Your task to perform on an android device: check google app version Image 0: 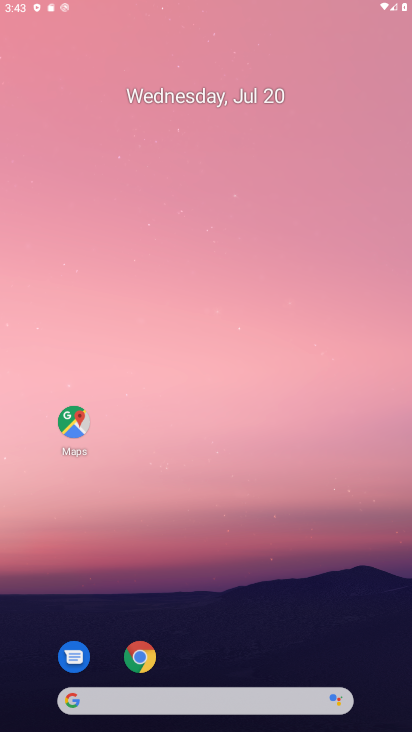
Step 0: press back button
Your task to perform on an android device: check google app version Image 1: 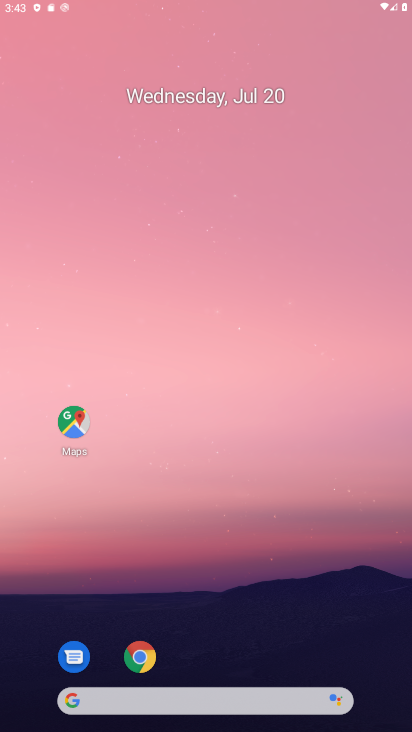
Step 1: click (157, 142)
Your task to perform on an android device: check google app version Image 2: 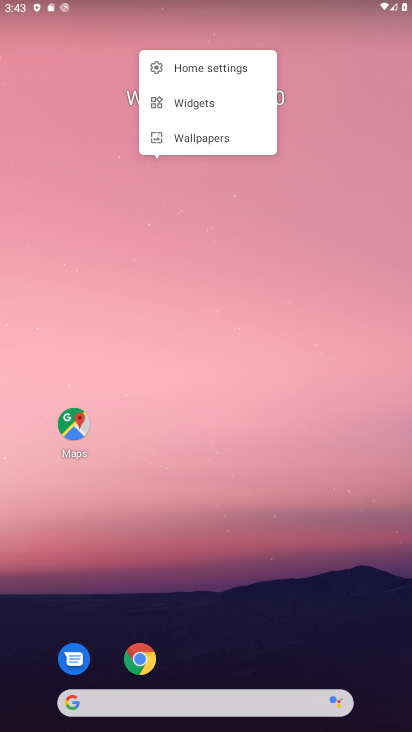
Step 2: drag from (265, 385) to (250, 74)
Your task to perform on an android device: check google app version Image 3: 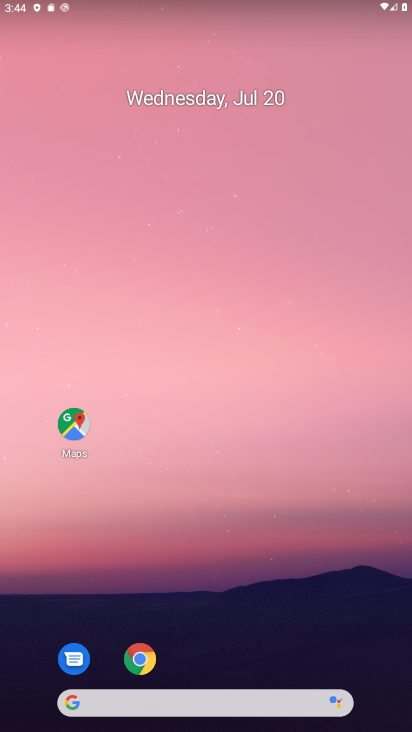
Step 3: drag from (226, 210) to (193, 107)
Your task to perform on an android device: check google app version Image 4: 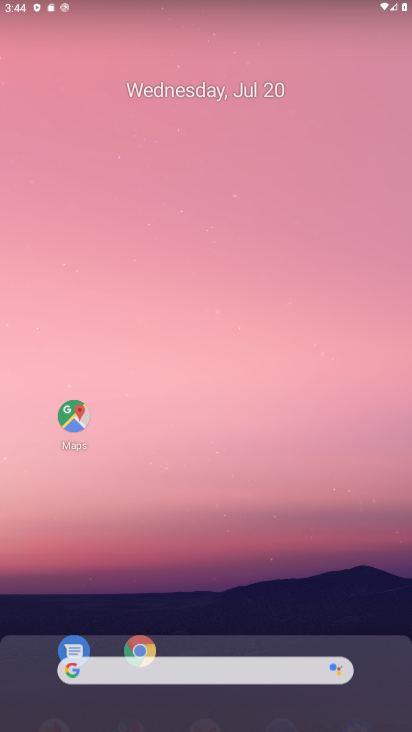
Step 4: drag from (223, 526) to (242, 53)
Your task to perform on an android device: check google app version Image 5: 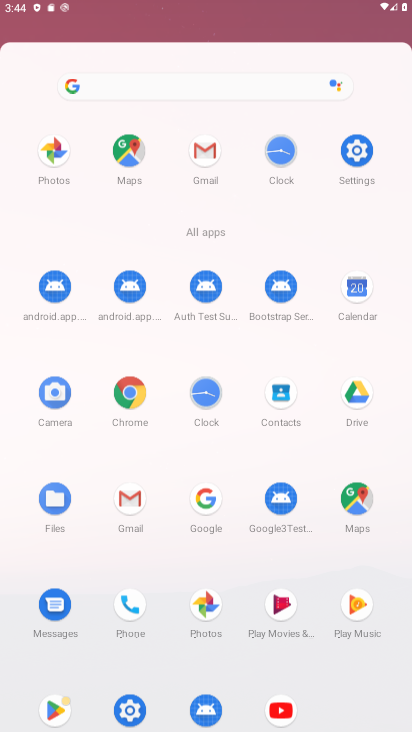
Step 5: drag from (237, 468) to (253, 21)
Your task to perform on an android device: check google app version Image 6: 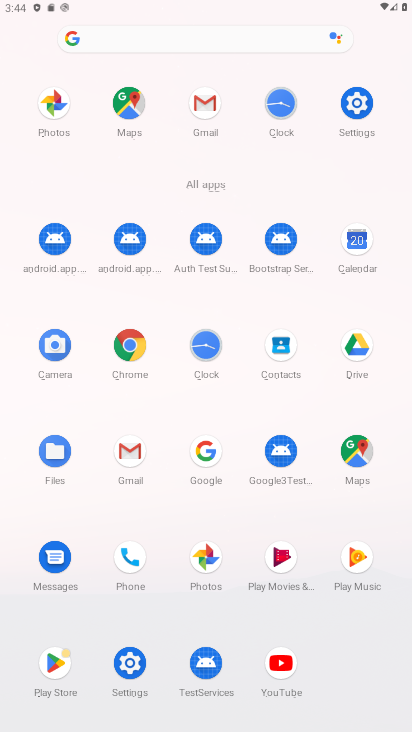
Step 6: click (198, 457)
Your task to perform on an android device: check google app version Image 7: 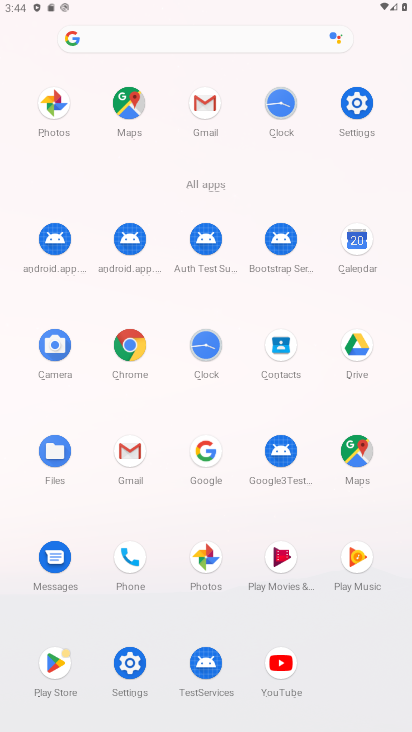
Step 7: click (198, 457)
Your task to perform on an android device: check google app version Image 8: 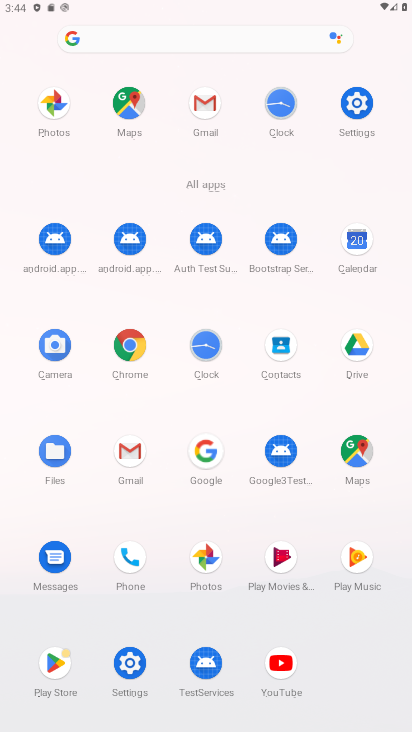
Step 8: click (198, 457)
Your task to perform on an android device: check google app version Image 9: 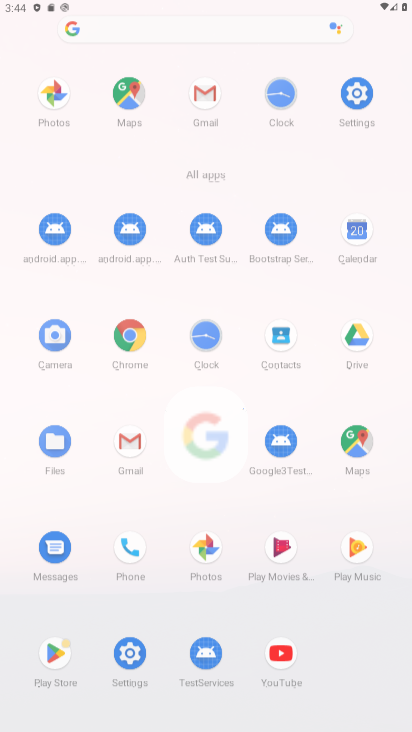
Step 9: click (200, 457)
Your task to perform on an android device: check google app version Image 10: 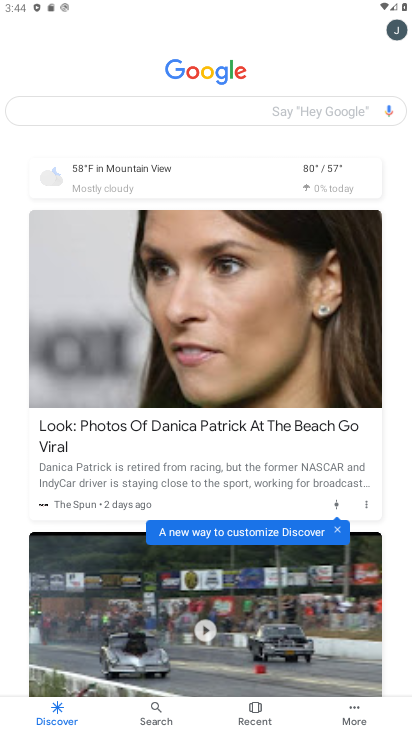
Step 10: click (358, 707)
Your task to perform on an android device: check google app version Image 11: 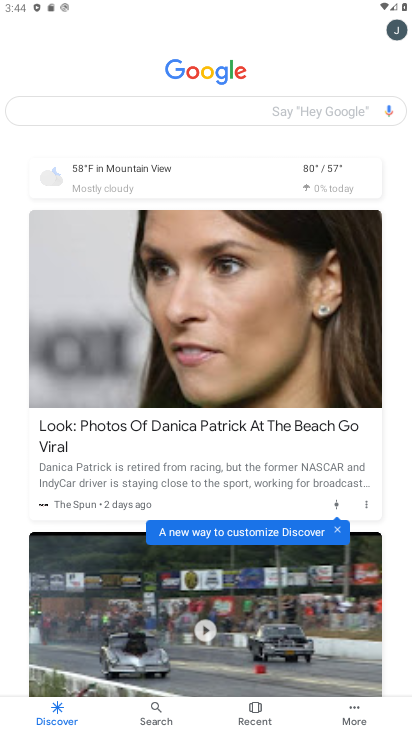
Step 11: click (358, 707)
Your task to perform on an android device: check google app version Image 12: 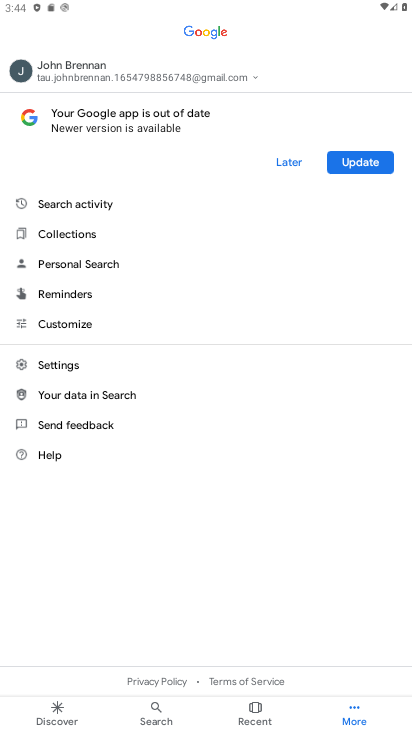
Step 12: click (67, 358)
Your task to perform on an android device: check google app version Image 13: 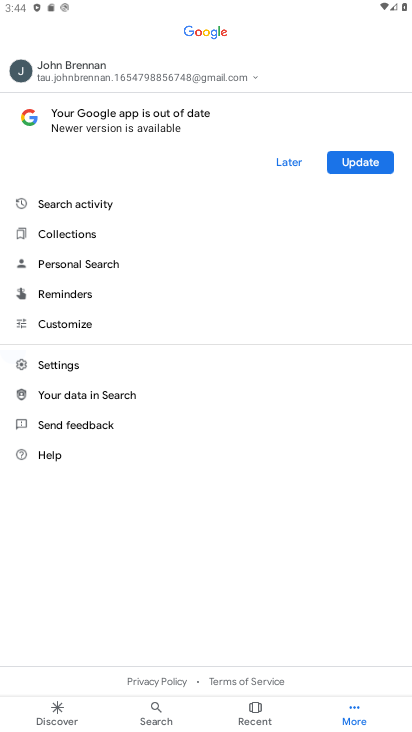
Step 13: click (78, 368)
Your task to perform on an android device: check google app version Image 14: 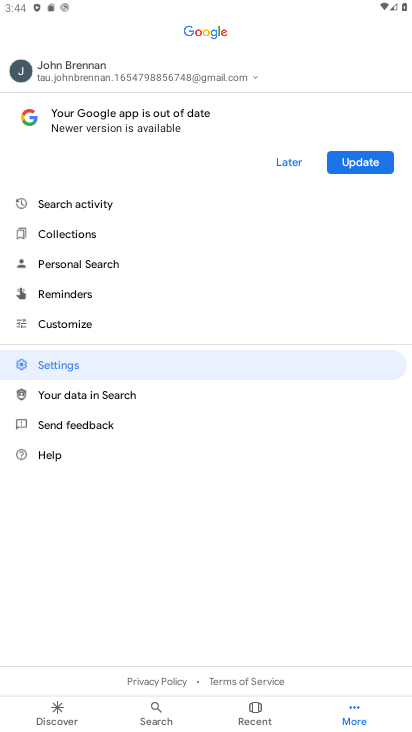
Step 14: click (80, 370)
Your task to perform on an android device: check google app version Image 15: 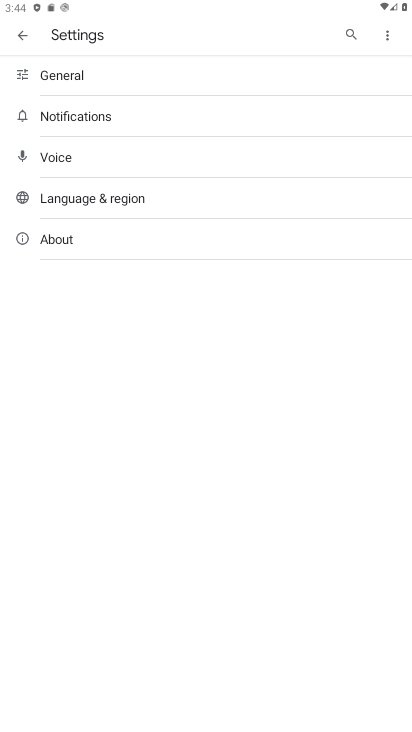
Step 15: click (74, 241)
Your task to perform on an android device: check google app version Image 16: 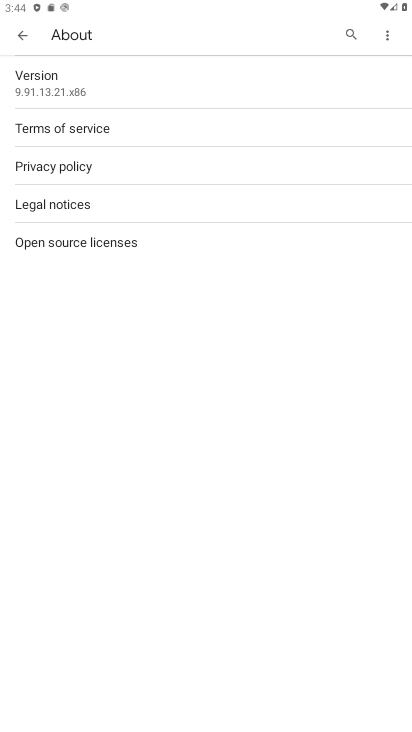
Step 16: click (47, 74)
Your task to perform on an android device: check google app version Image 17: 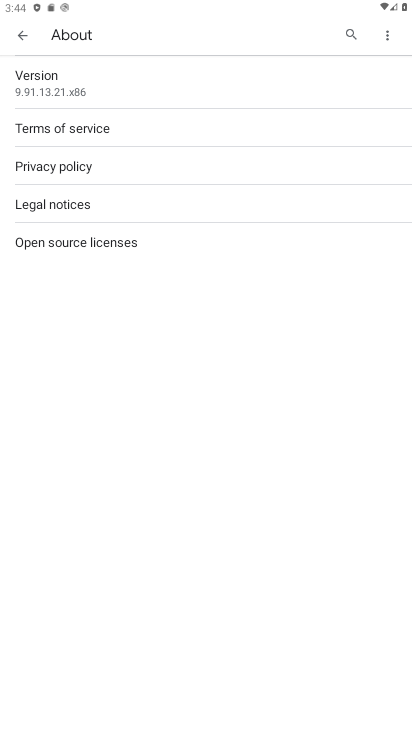
Step 17: task complete